Your task to perform on an android device: Open internet settings Image 0: 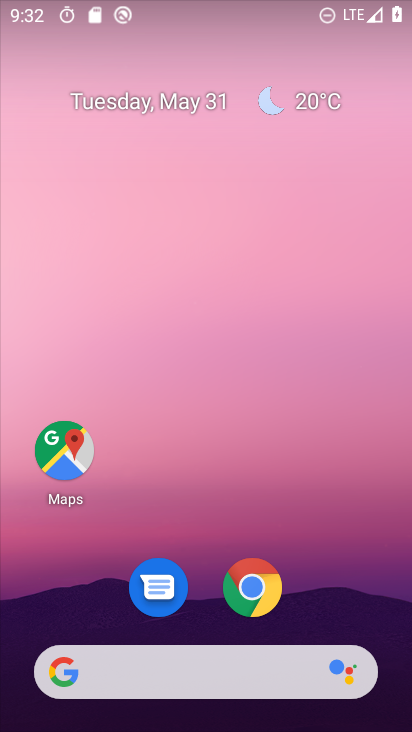
Step 0: drag from (289, 16) to (263, 311)
Your task to perform on an android device: Open internet settings Image 1: 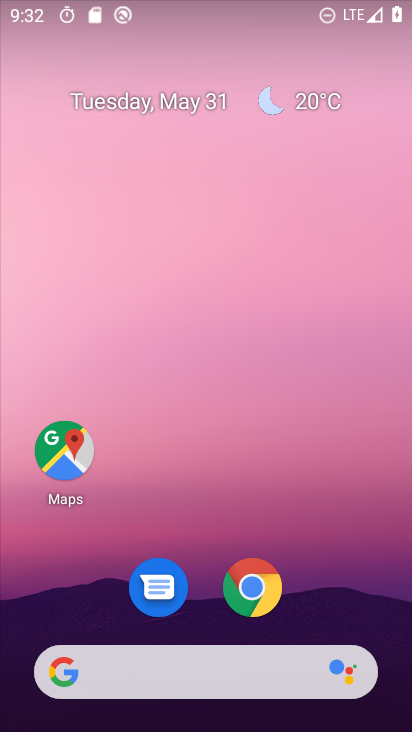
Step 1: drag from (232, 4) to (274, 367)
Your task to perform on an android device: Open internet settings Image 2: 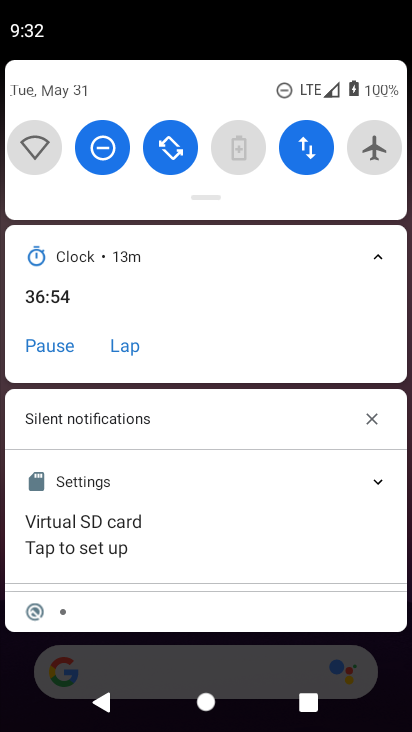
Step 2: click (304, 141)
Your task to perform on an android device: Open internet settings Image 3: 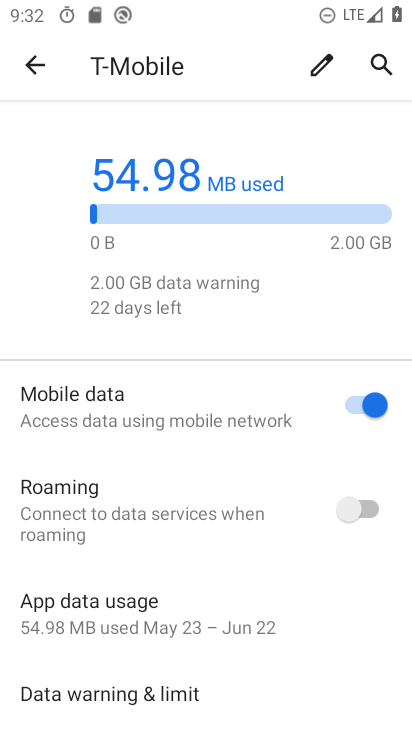
Step 3: task complete